Your task to perform on an android device: empty trash in google photos Image 0: 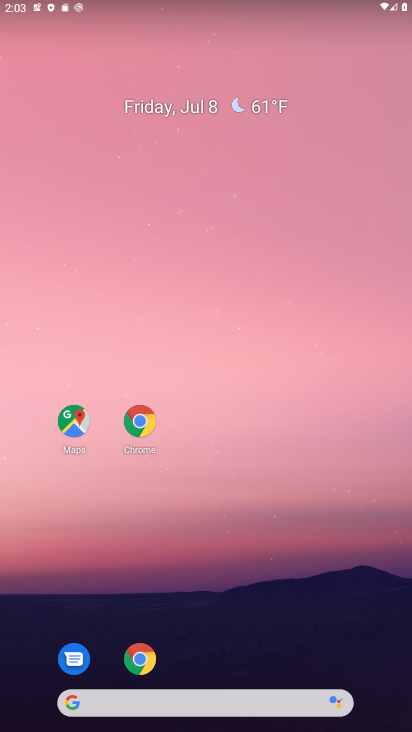
Step 0: drag from (243, 679) to (108, 62)
Your task to perform on an android device: empty trash in google photos Image 1: 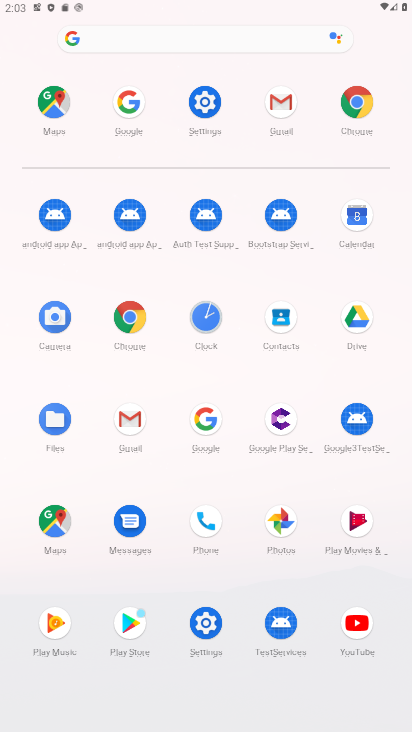
Step 1: click (276, 520)
Your task to perform on an android device: empty trash in google photos Image 2: 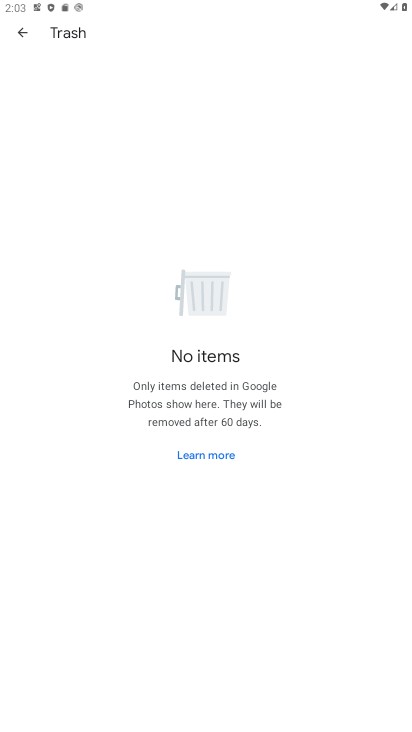
Step 2: task complete